Your task to perform on an android device: Go to Android settings Image 0: 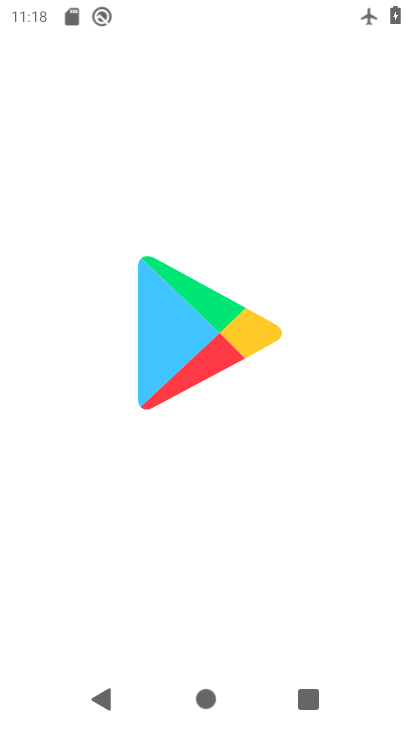
Step 0: drag from (325, 483) to (225, 50)
Your task to perform on an android device: Go to Android settings Image 1: 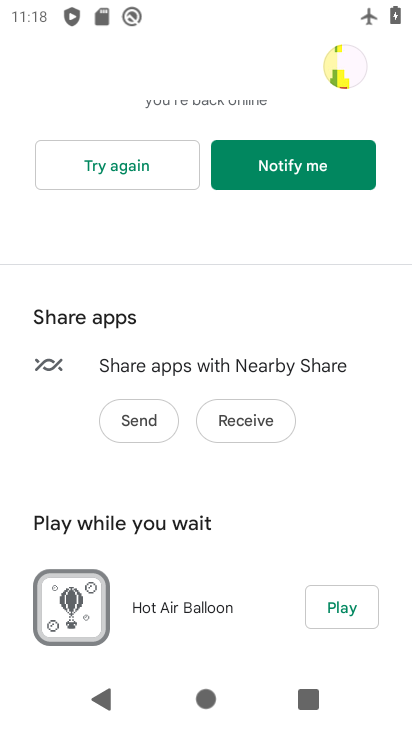
Step 1: press back button
Your task to perform on an android device: Go to Android settings Image 2: 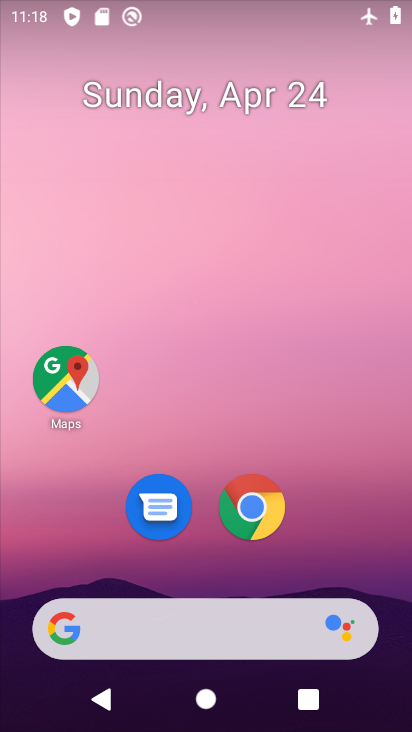
Step 2: drag from (342, 537) to (226, 7)
Your task to perform on an android device: Go to Android settings Image 3: 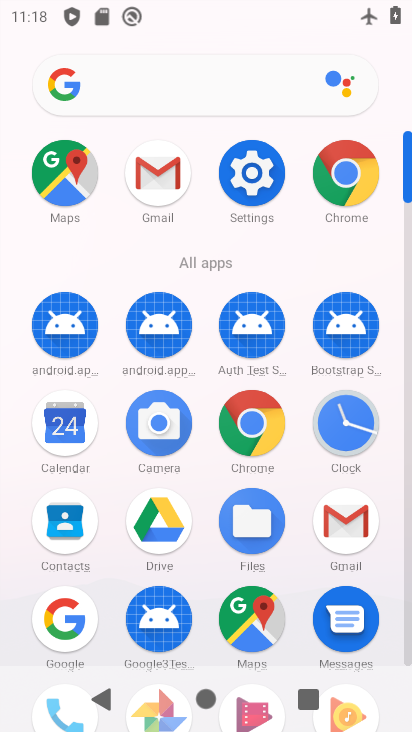
Step 3: click (258, 167)
Your task to perform on an android device: Go to Android settings Image 4: 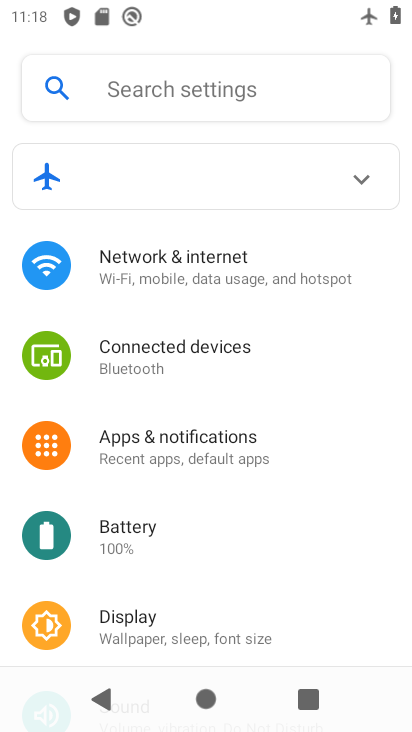
Step 4: task complete